Your task to perform on an android device: toggle sleep mode Image 0: 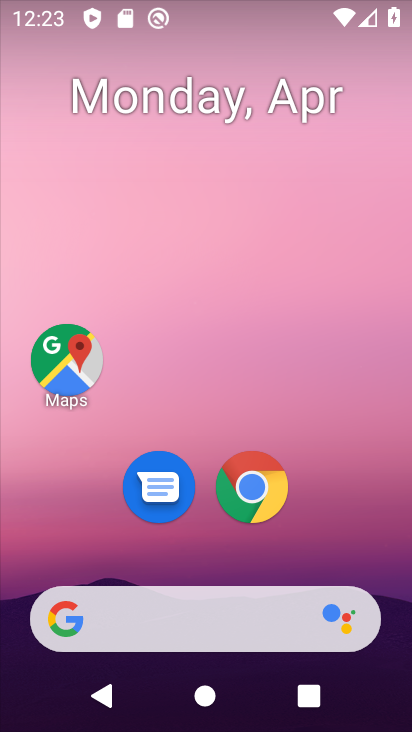
Step 0: drag from (390, 574) to (213, 38)
Your task to perform on an android device: toggle sleep mode Image 1: 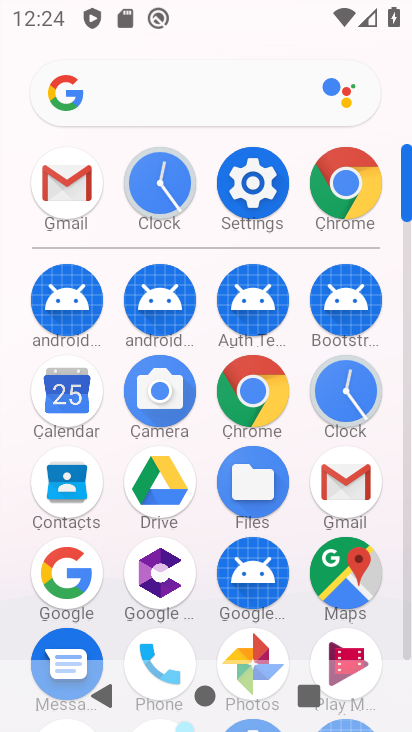
Step 1: click (254, 193)
Your task to perform on an android device: toggle sleep mode Image 2: 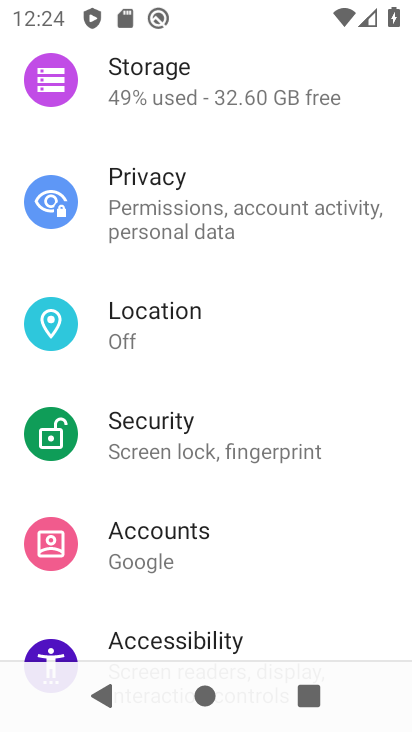
Step 2: task complete